Your task to perform on an android device: Open wifi settings Image 0: 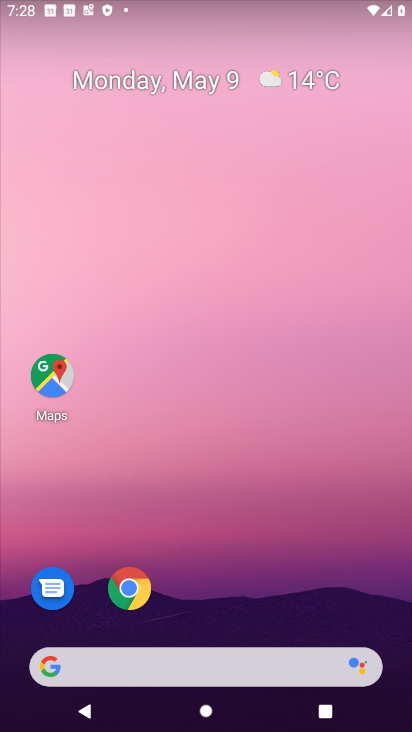
Step 0: drag from (351, 610) to (279, 45)
Your task to perform on an android device: Open wifi settings Image 1: 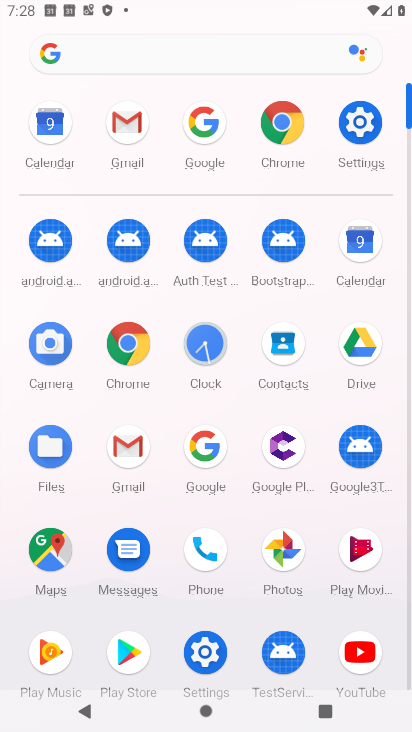
Step 1: click (196, 659)
Your task to perform on an android device: Open wifi settings Image 2: 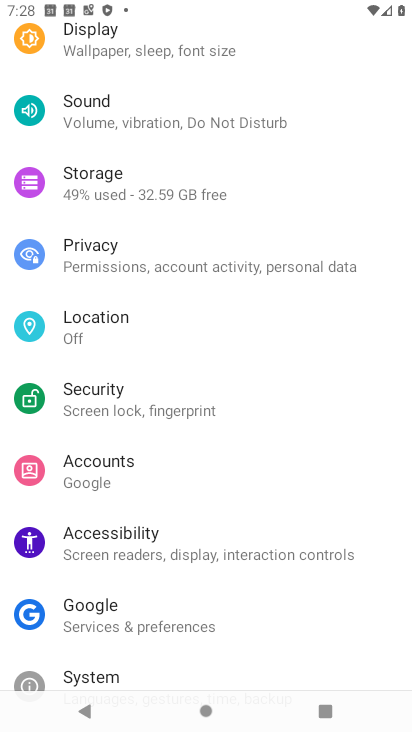
Step 2: drag from (151, 180) to (47, 729)
Your task to perform on an android device: Open wifi settings Image 3: 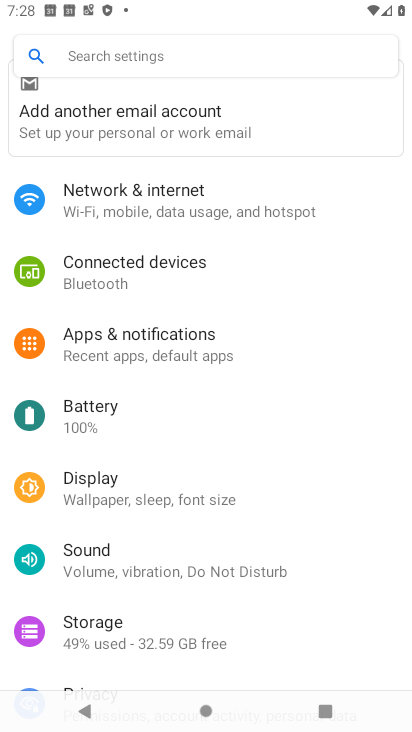
Step 3: click (193, 193)
Your task to perform on an android device: Open wifi settings Image 4: 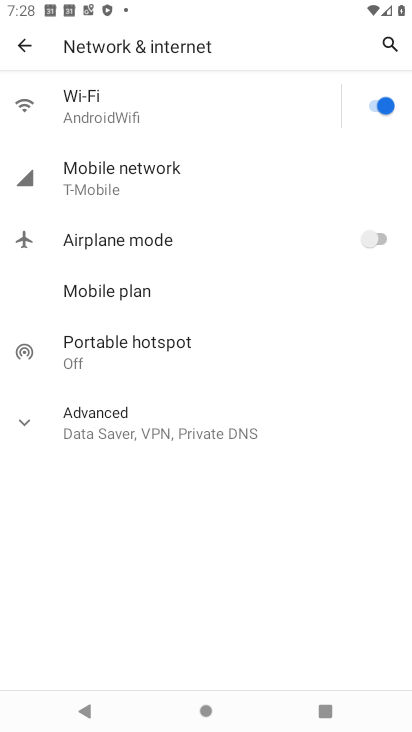
Step 4: click (181, 117)
Your task to perform on an android device: Open wifi settings Image 5: 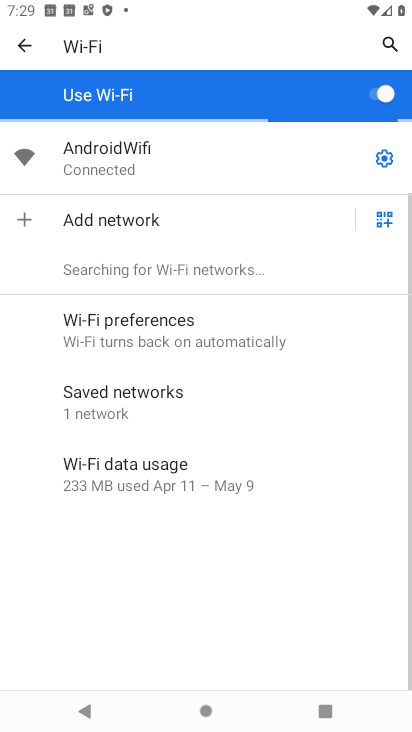
Step 5: task complete